Your task to perform on an android device: When is my next meeting? Image 0: 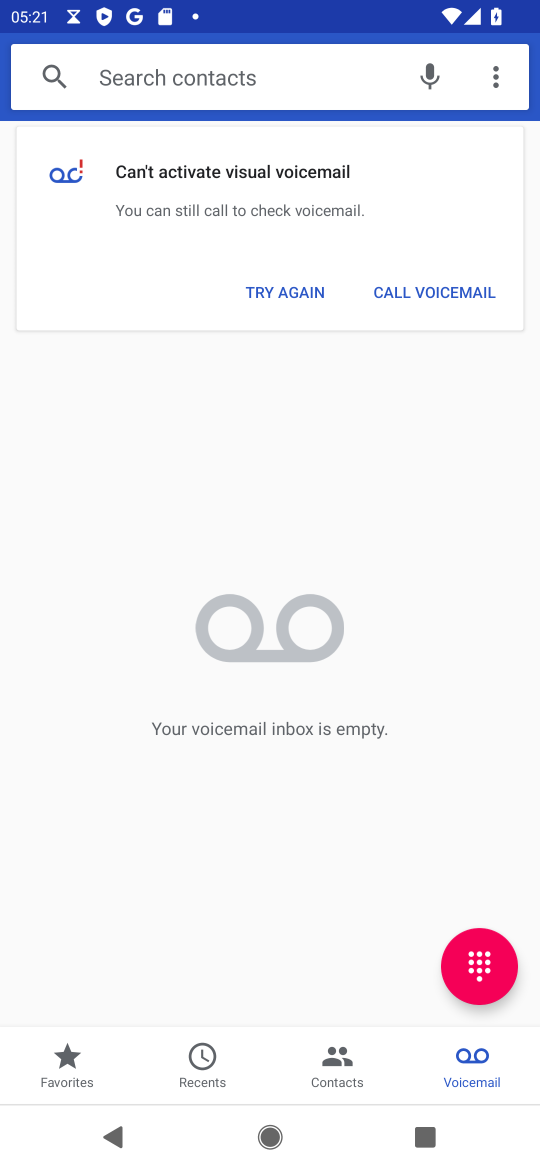
Step 0: press home button
Your task to perform on an android device: When is my next meeting? Image 1: 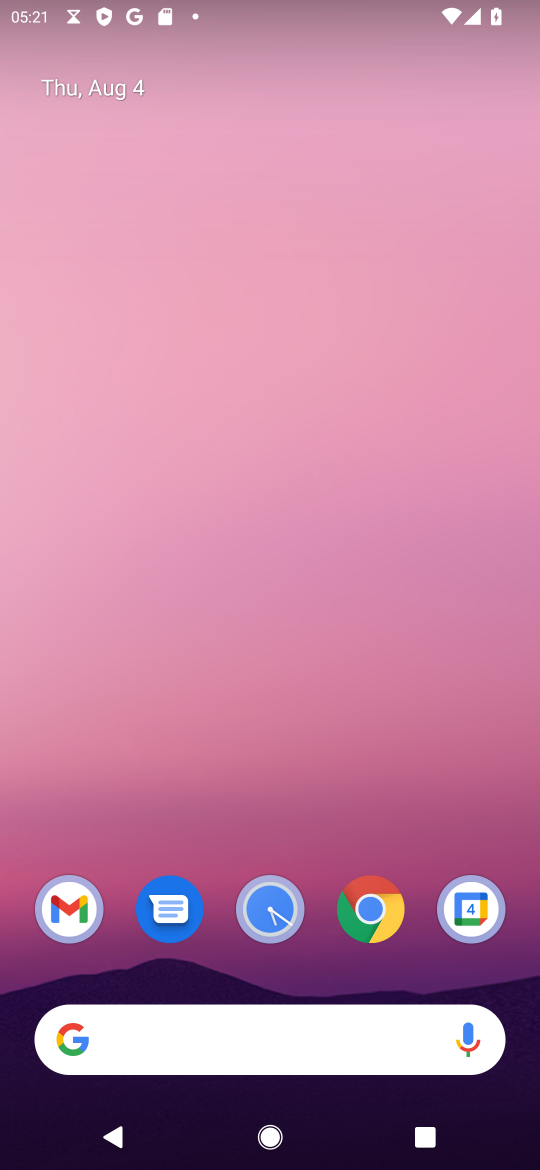
Step 1: drag from (234, 1039) to (465, 219)
Your task to perform on an android device: When is my next meeting? Image 2: 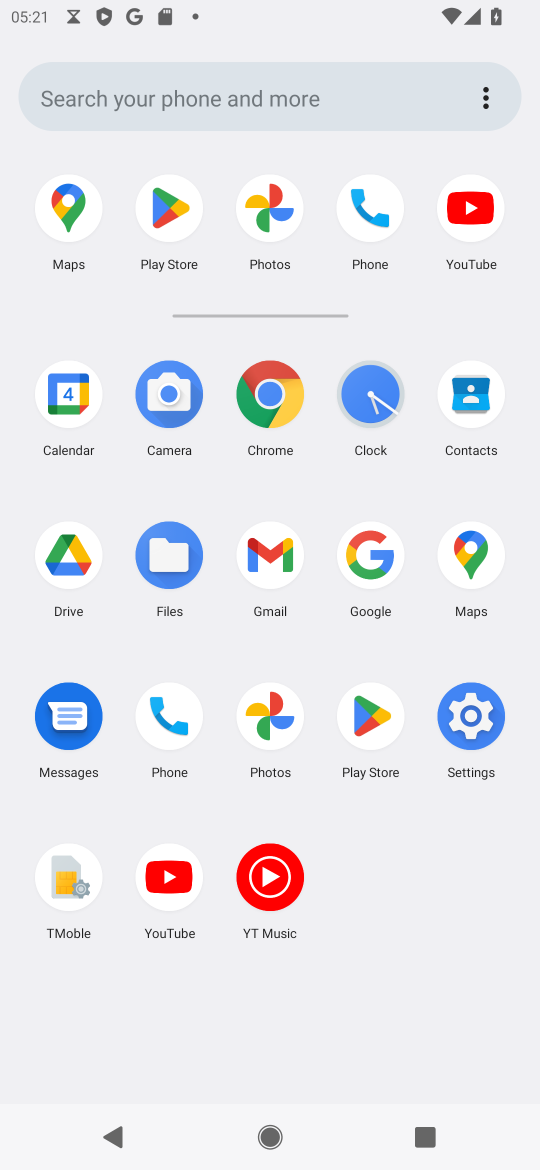
Step 2: click (67, 403)
Your task to perform on an android device: When is my next meeting? Image 3: 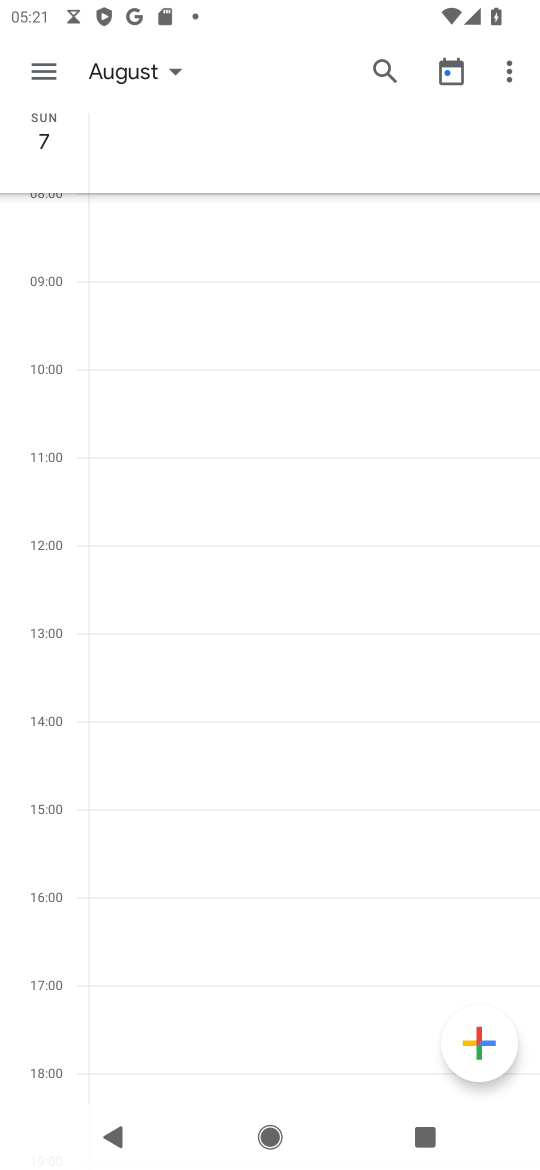
Step 3: click (112, 65)
Your task to perform on an android device: When is my next meeting? Image 4: 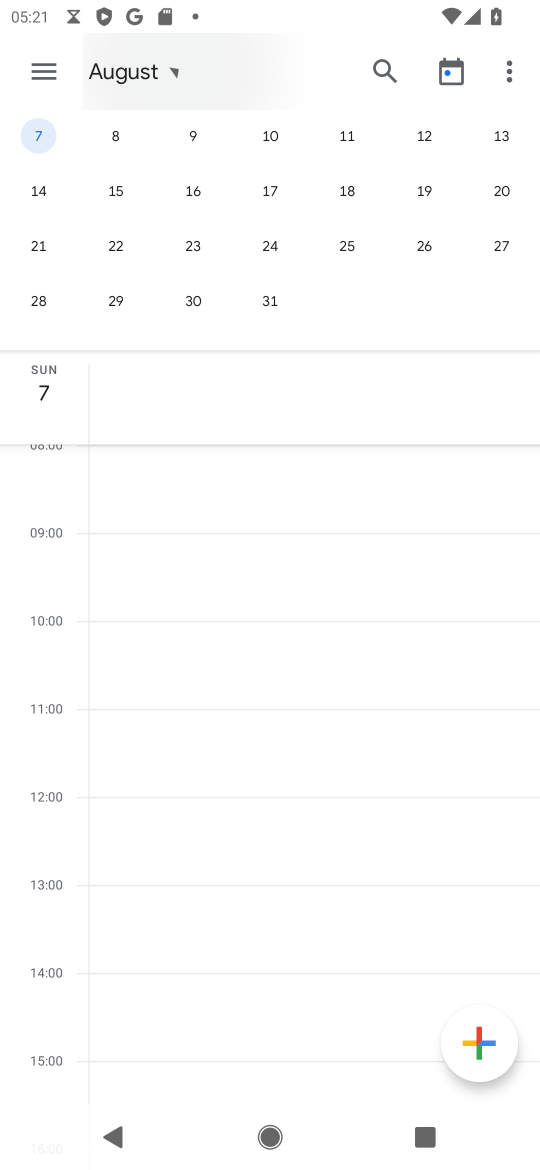
Step 4: click (110, 72)
Your task to perform on an android device: When is my next meeting? Image 5: 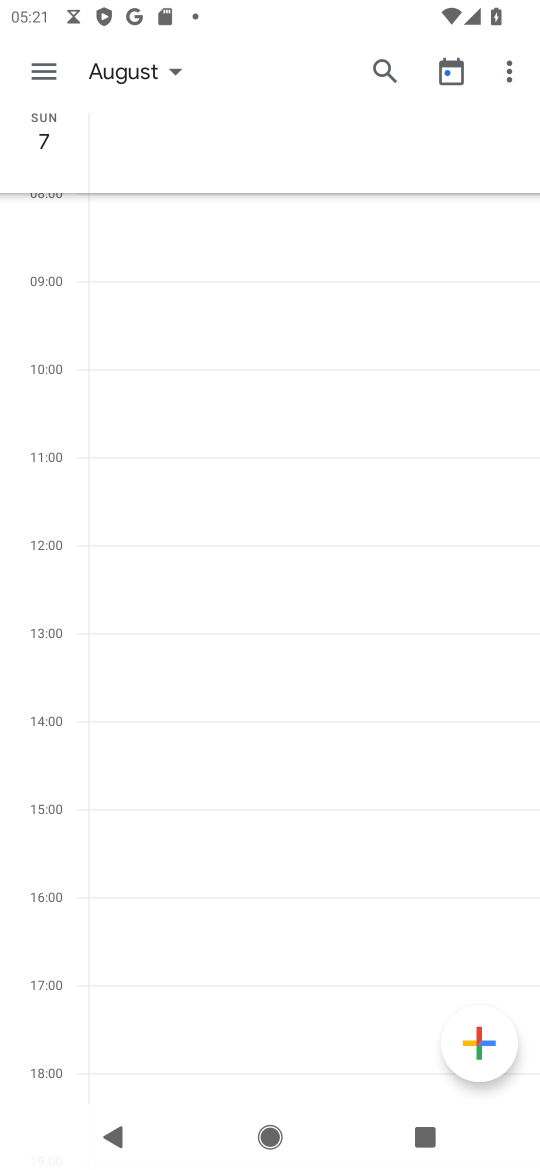
Step 5: click (137, 68)
Your task to perform on an android device: When is my next meeting? Image 6: 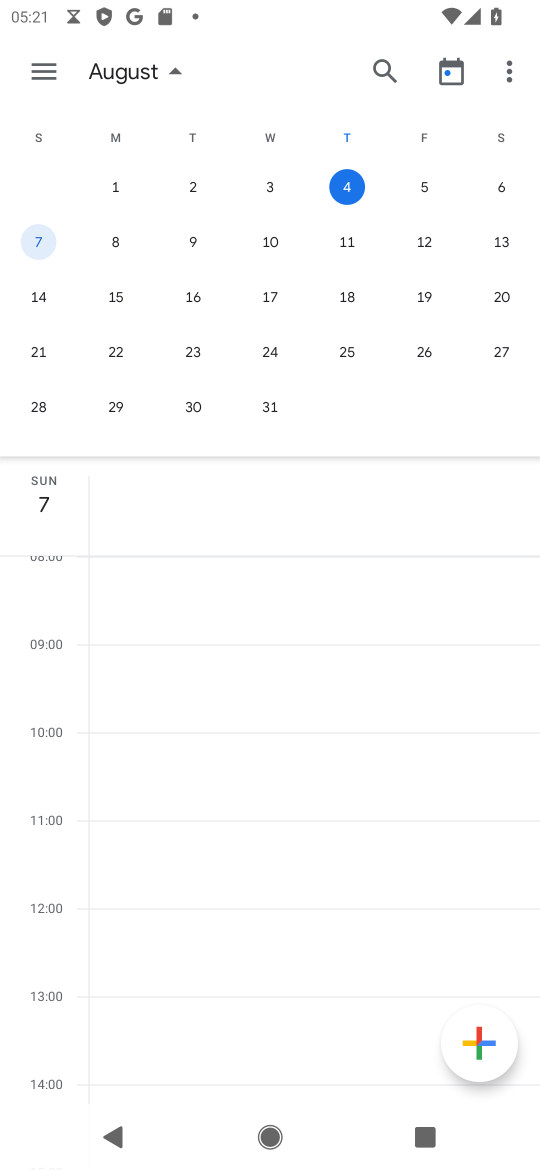
Step 6: click (339, 195)
Your task to perform on an android device: When is my next meeting? Image 7: 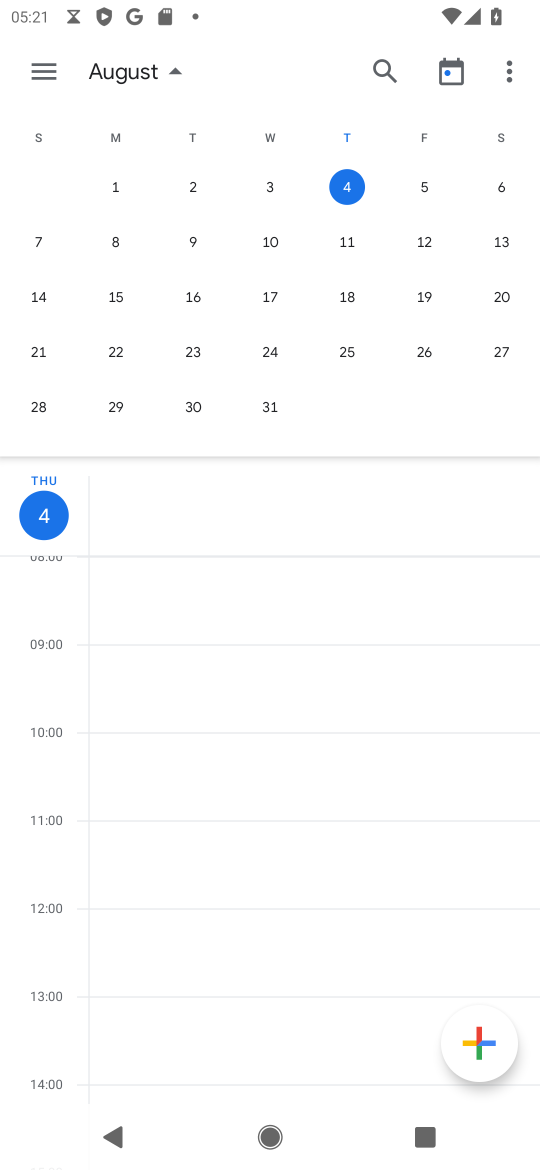
Step 7: click (45, 75)
Your task to perform on an android device: When is my next meeting? Image 8: 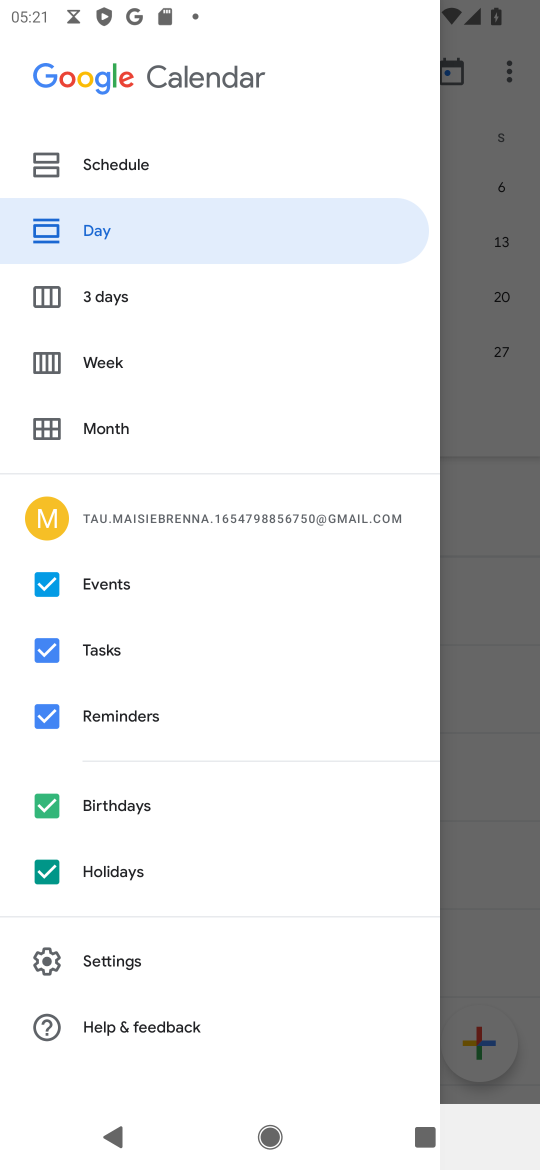
Step 8: click (118, 366)
Your task to perform on an android device: When is my next meeting? Image 9: 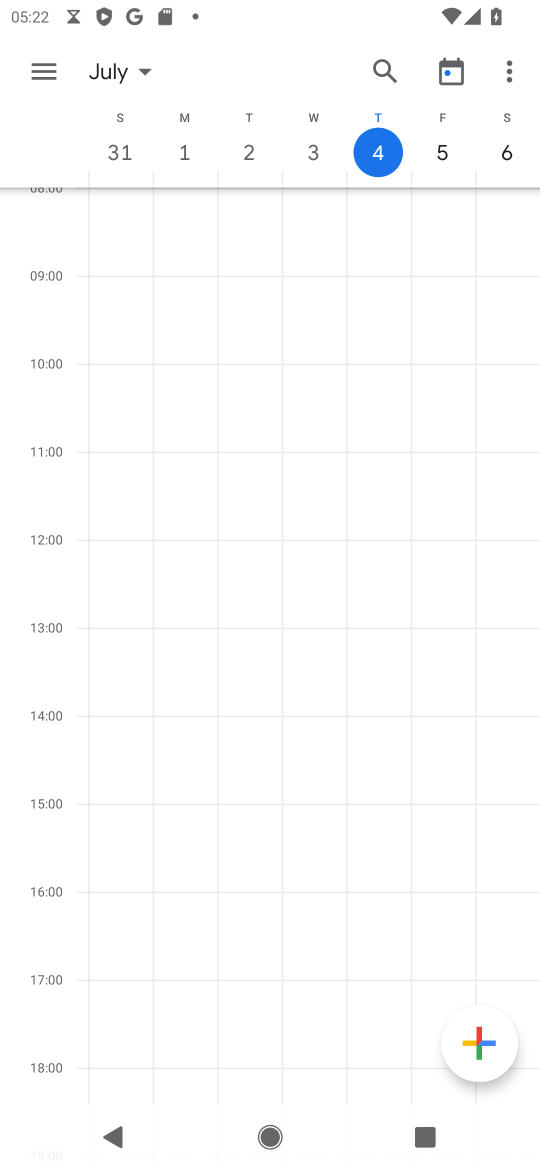
Step 9: click (39, 75)
Your task to perform on an android device: When is my next meeting? Image 10: 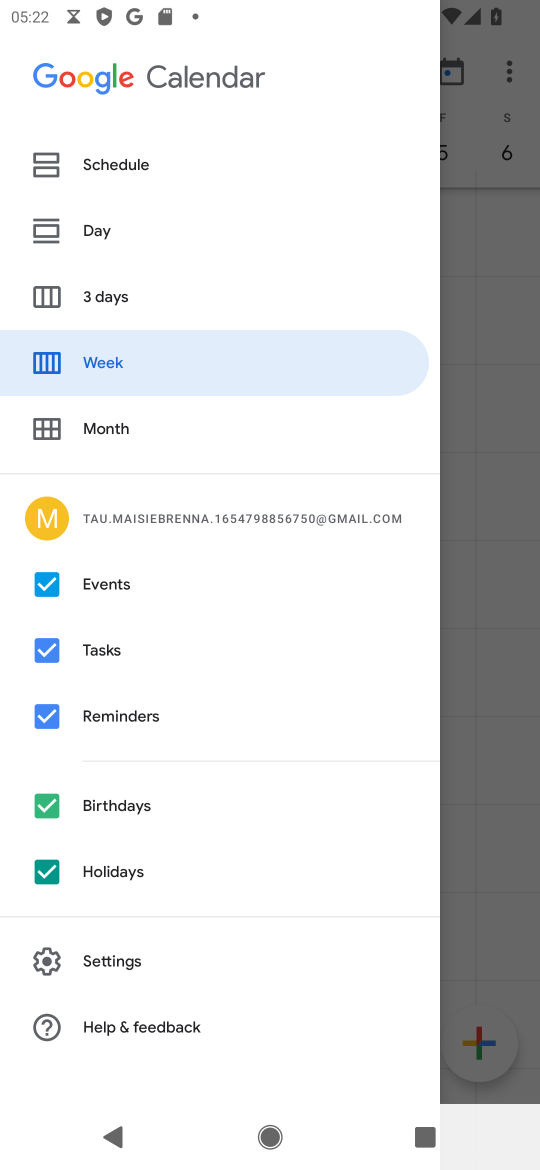
Step 10: click (96, 164)
Your task to perform on an android device: When is my next meeting? Image 11: 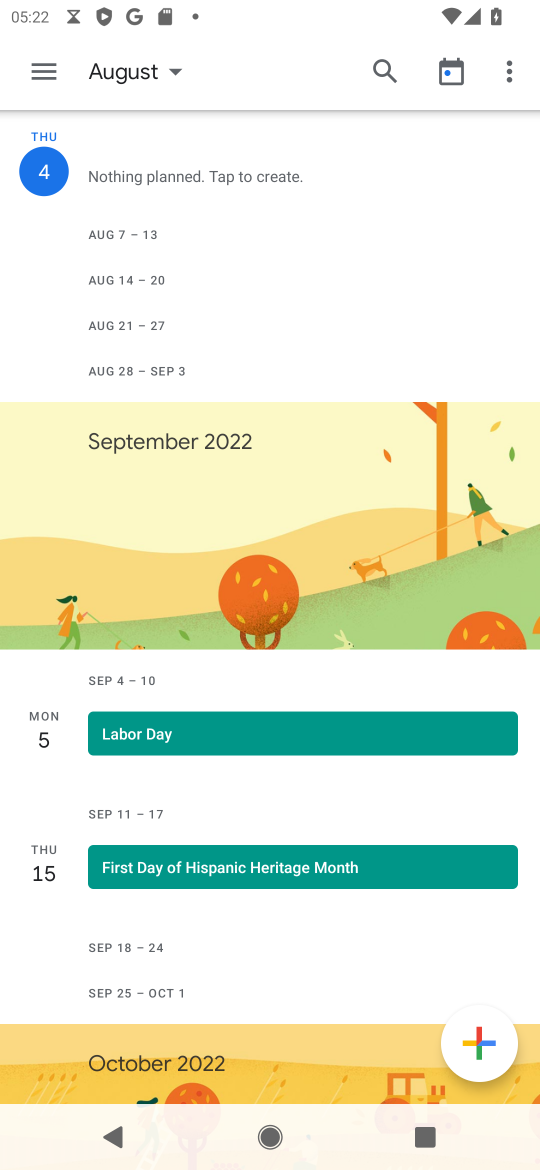
Step 11: task complete